Your task to perform on an android device: turn on the 12-hour format for clock Image 0: 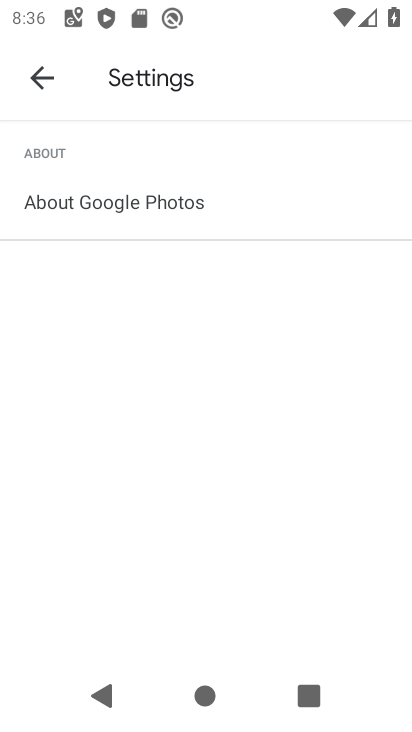
Step 0: press home button
Your task to perform on an android device: turn on the 12-hour format for clock Image 1: 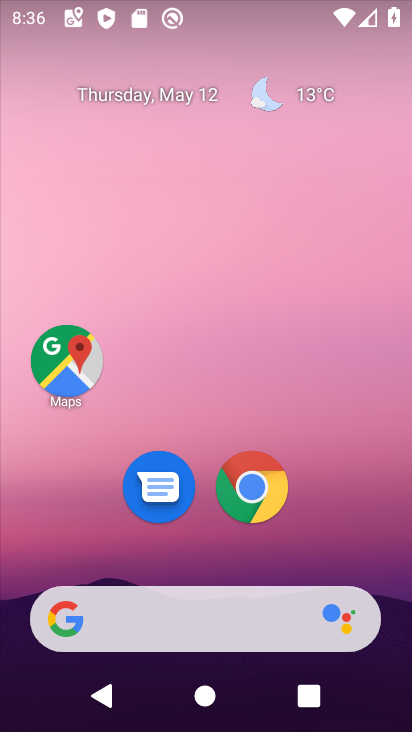
Step 1: drag from (323, 523) to (327, 0)
Your task to perform on an android device: turn on the 12-hour format for clock Image 2: 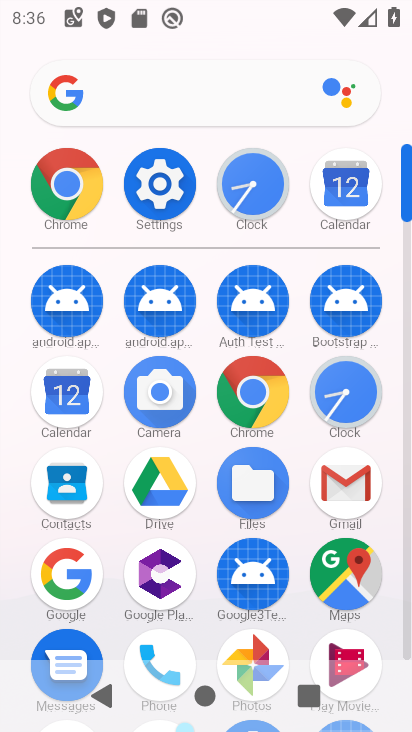
Step 2: click (259, 231)
Your task to perform on an android device: turn on the 12-hour format for clock Image 3: 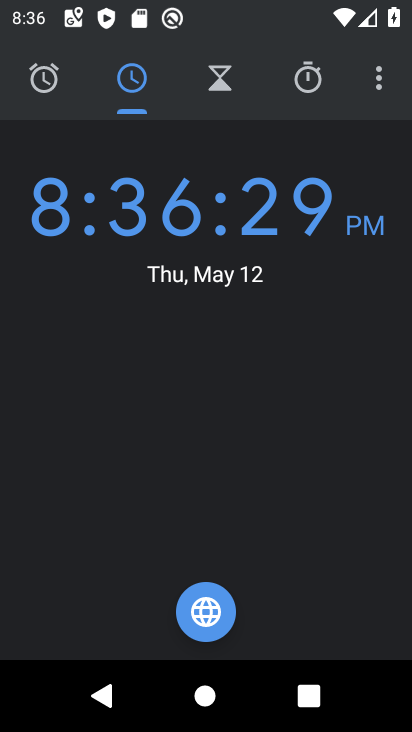
Step 3: click (380, 84)
Your task to perform on an android device: turn on the 12-hour format for clock Image 4: 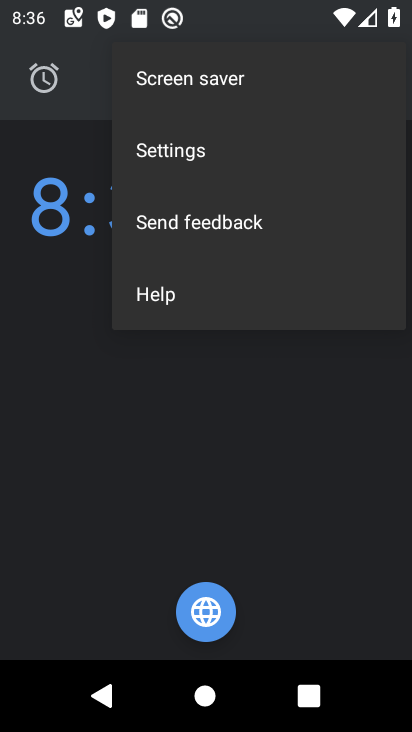
Step 4: click (151, 147)
Your task to perform on an android device: turn on the 12-hour format for clock Image 5: 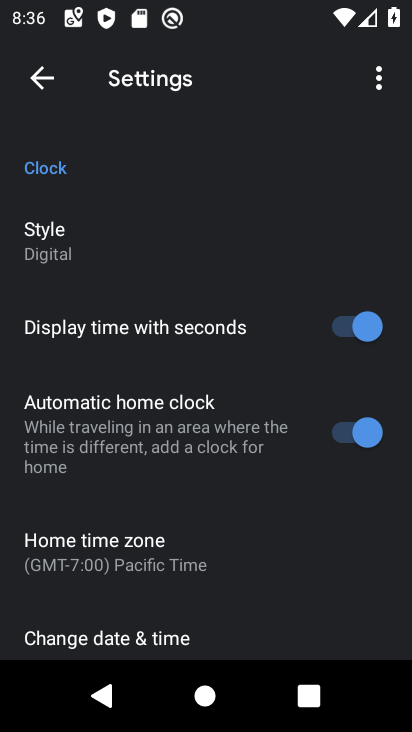
Step 5: drag from (157, 481) to (158, 208)
Your task to perform on an android device: turn on the 12-hour format for clock Image 6: 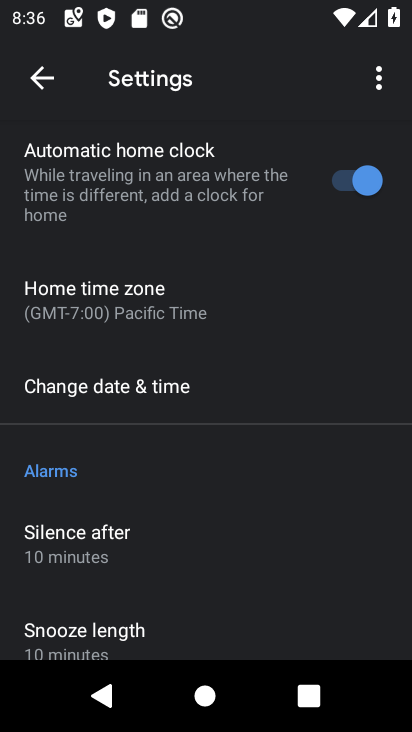
Step 6: click (83, 388)
Your task to perform on an android device: turn on the 12-hour format for clock Image 7: 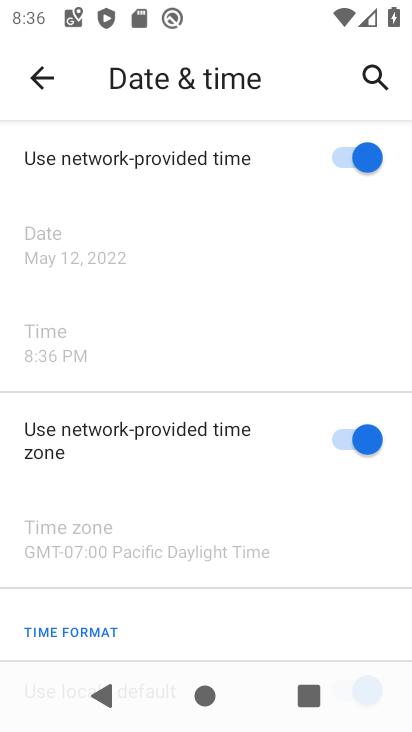
Step 7: task complete